Your task to perform on an android device: uninstall "WhatsApp Messenger" Image 0: 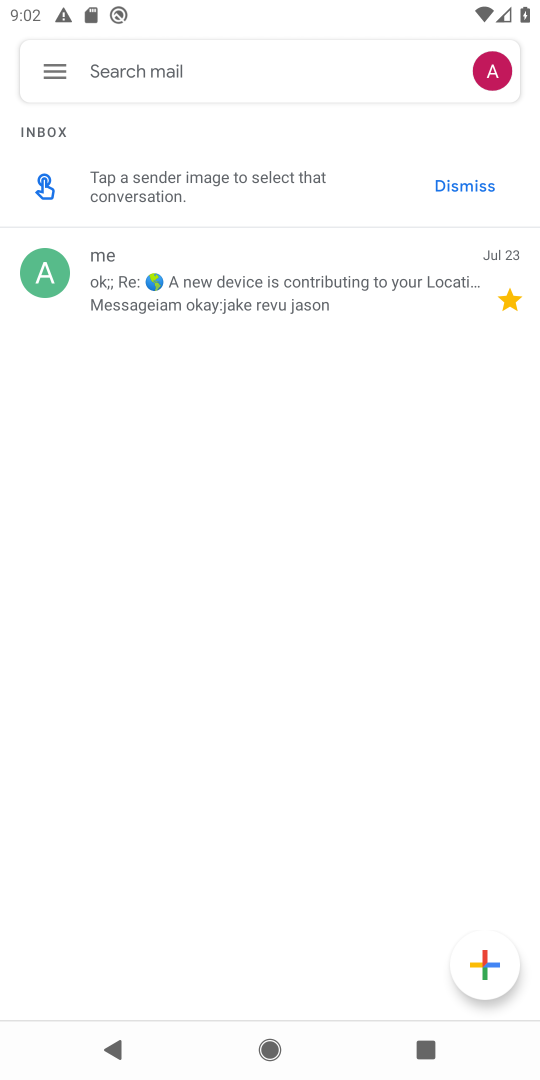
Step 0: press home button
Your task to perform on an android device: uninstall "WhatsApp Messenger" Image 1: 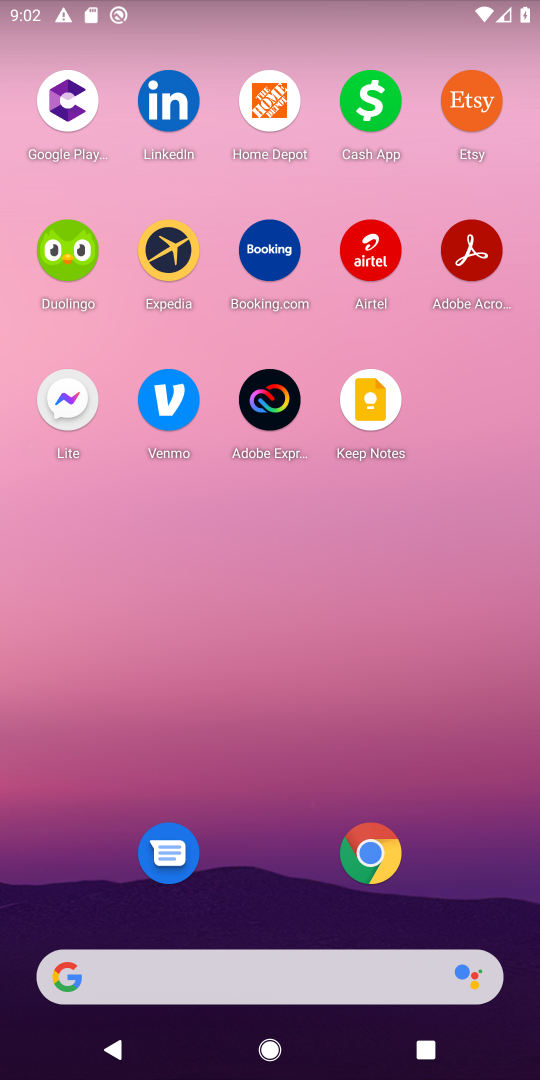
Step 1: drag from (275, 859) to (311, 325)
Your task to perform on an android device: uninstall "WhatsApp Messenger" Image 2: 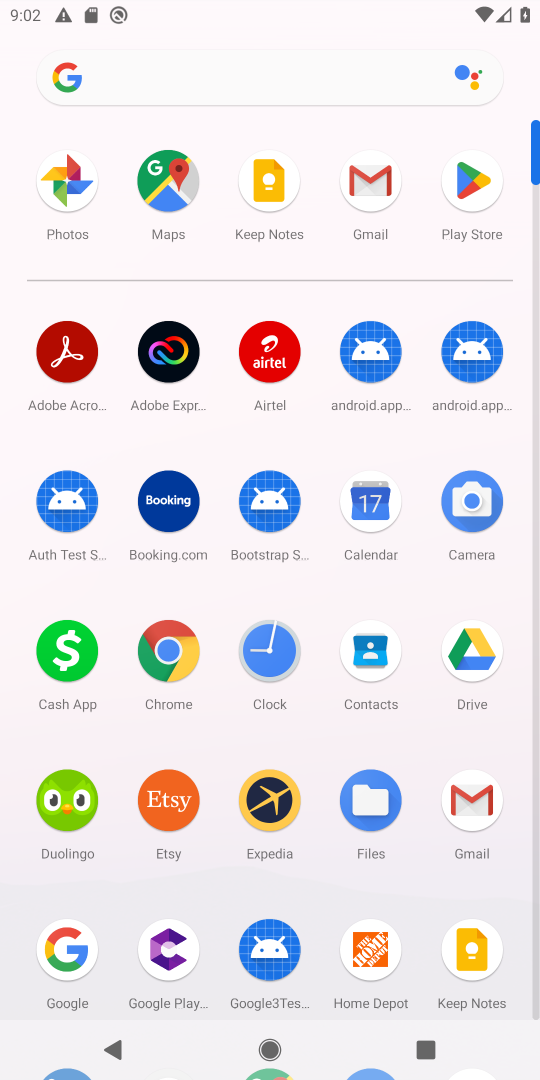
Step 2: click (474, 187)
Your task to perform on an android device: uninstall "WhatsApp Messenger" Image 3: 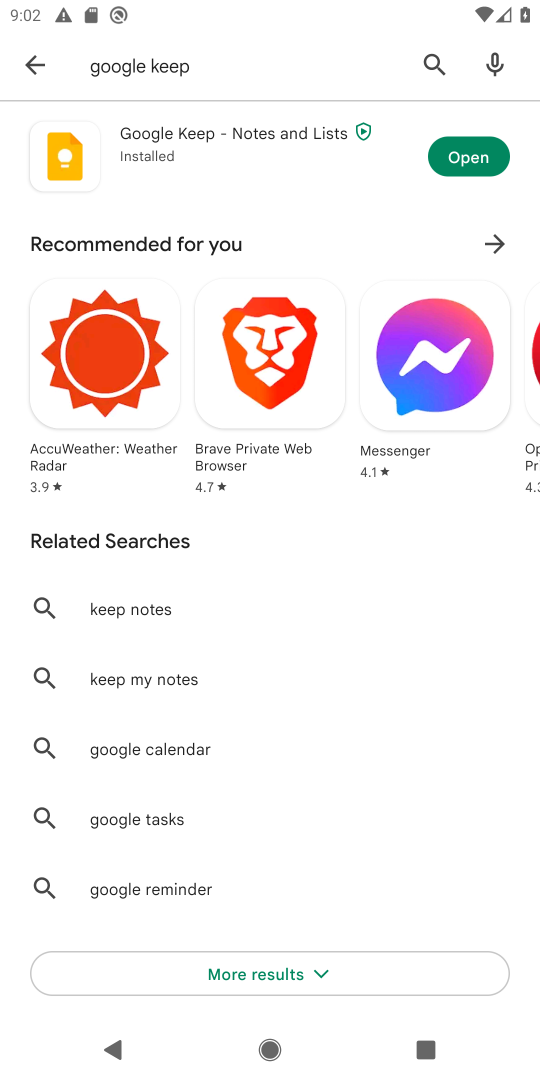
Step 3: click (408, 72)
Your task to perform on an android device: uninstall "WhatsApp Messenger" Image 4: 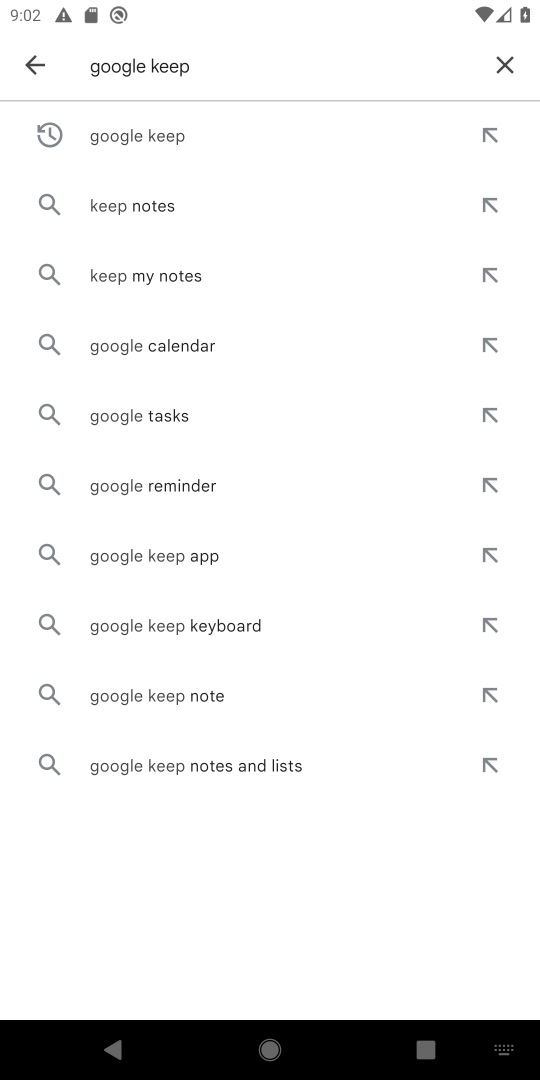
Step 4: click (514, 66)
Your task to perform on an android device: uninstall "WhatsApp Messenger" Image 5: 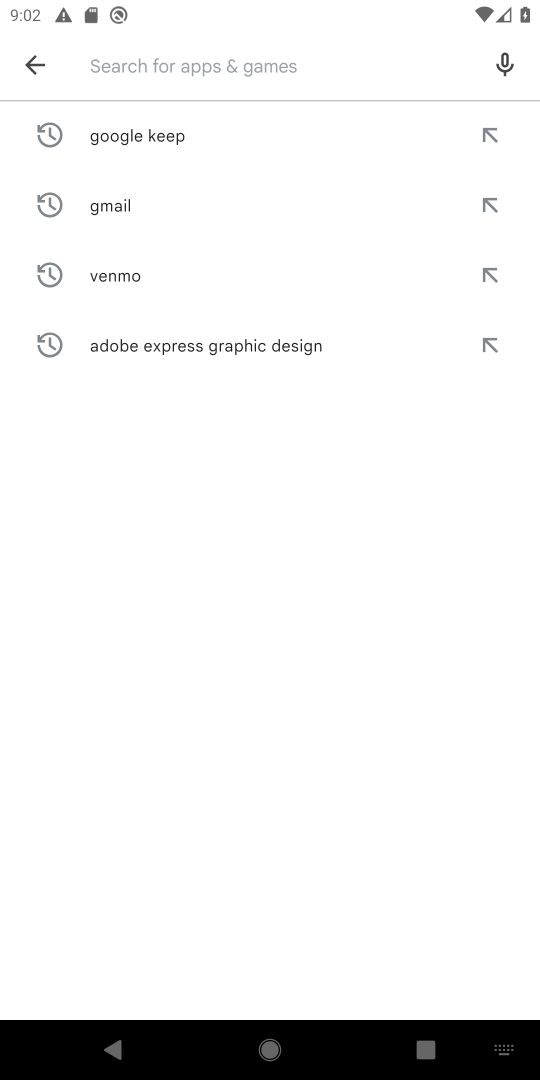
Step 5: type "WhatsApp Messenger"
Your task to perform on an android device: uninstall "WhatsApp Messenger" Image 6: 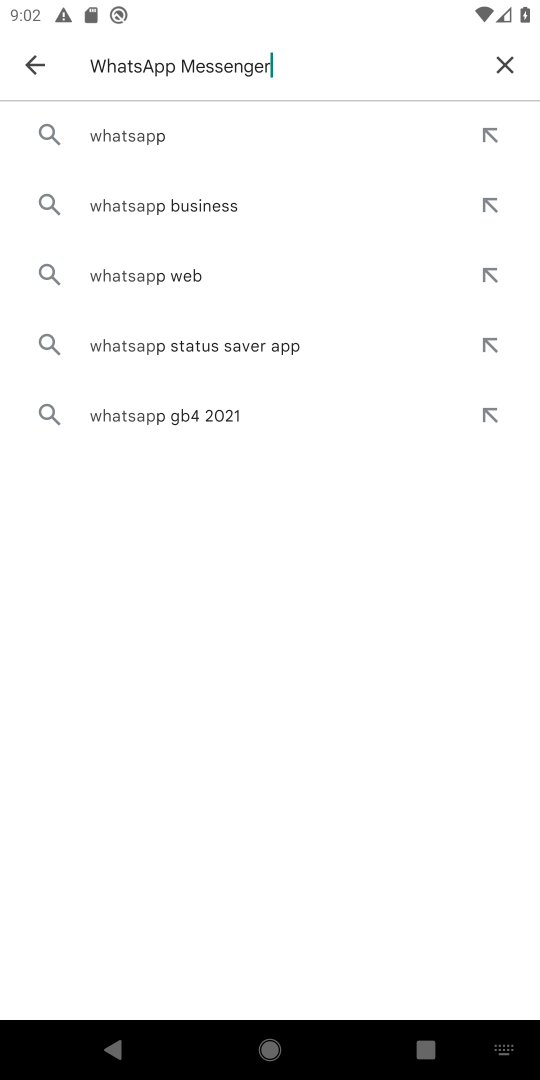
Step 6: type ""
Your task to perform on an android device: uninstall "WhatsApp Messenger" Image 7: 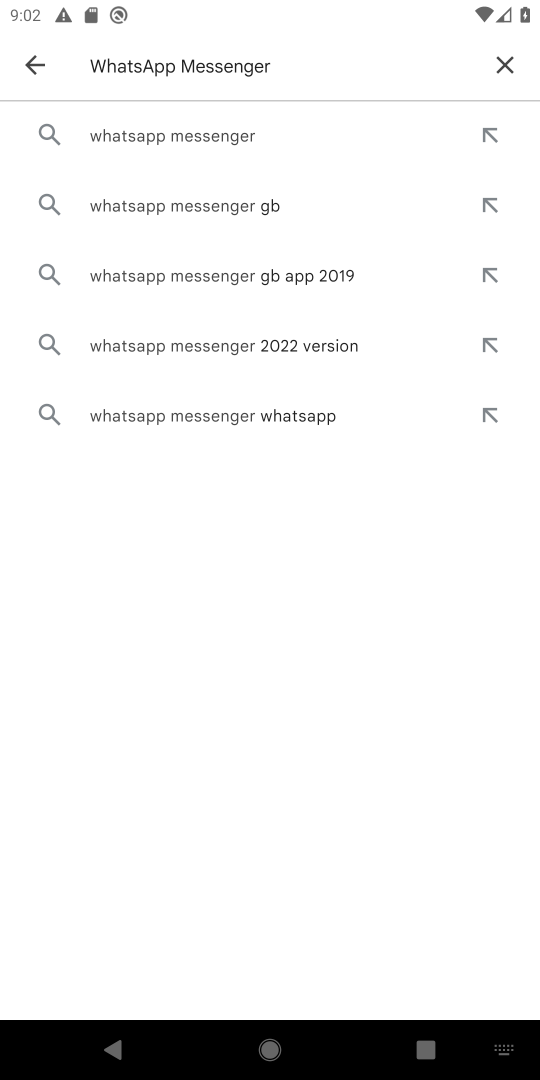
Step 7: click (196, 131)
Your task to perform on an android device: uninstall "WhatsApp Messenger" Image 8: 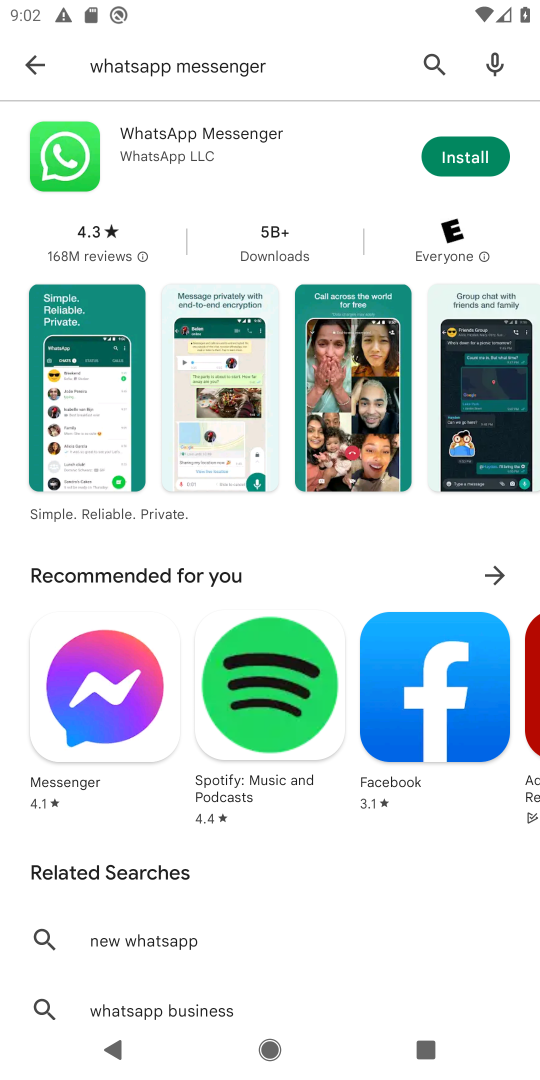
Step 8: click (232, 127)
Your task to perform on an android device: uninstall "WhatsApp Messenger" Image 9: 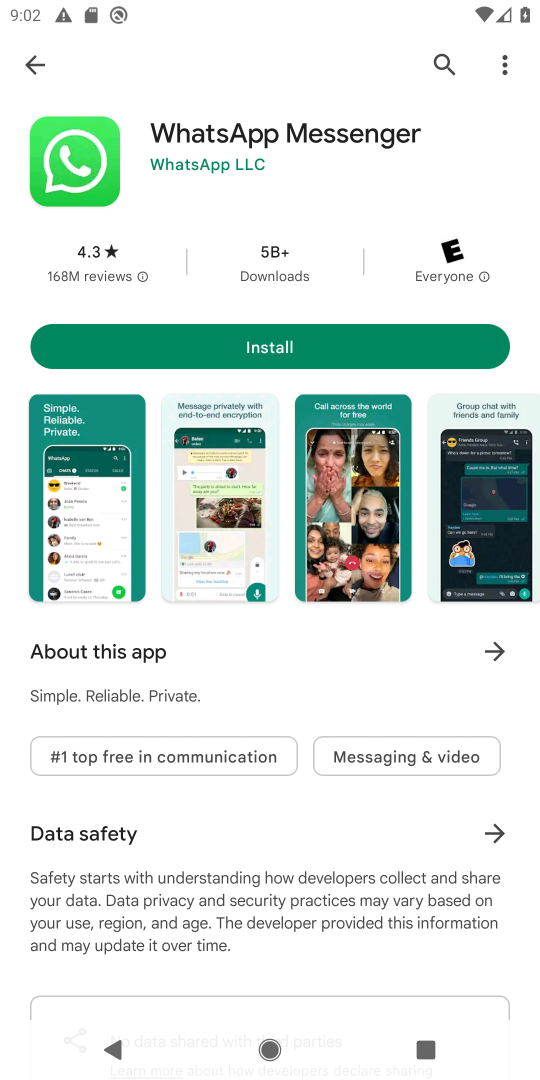
Step 9: task complete